Your task to perform on an android device: allow cookies in the chrome app Image 0: 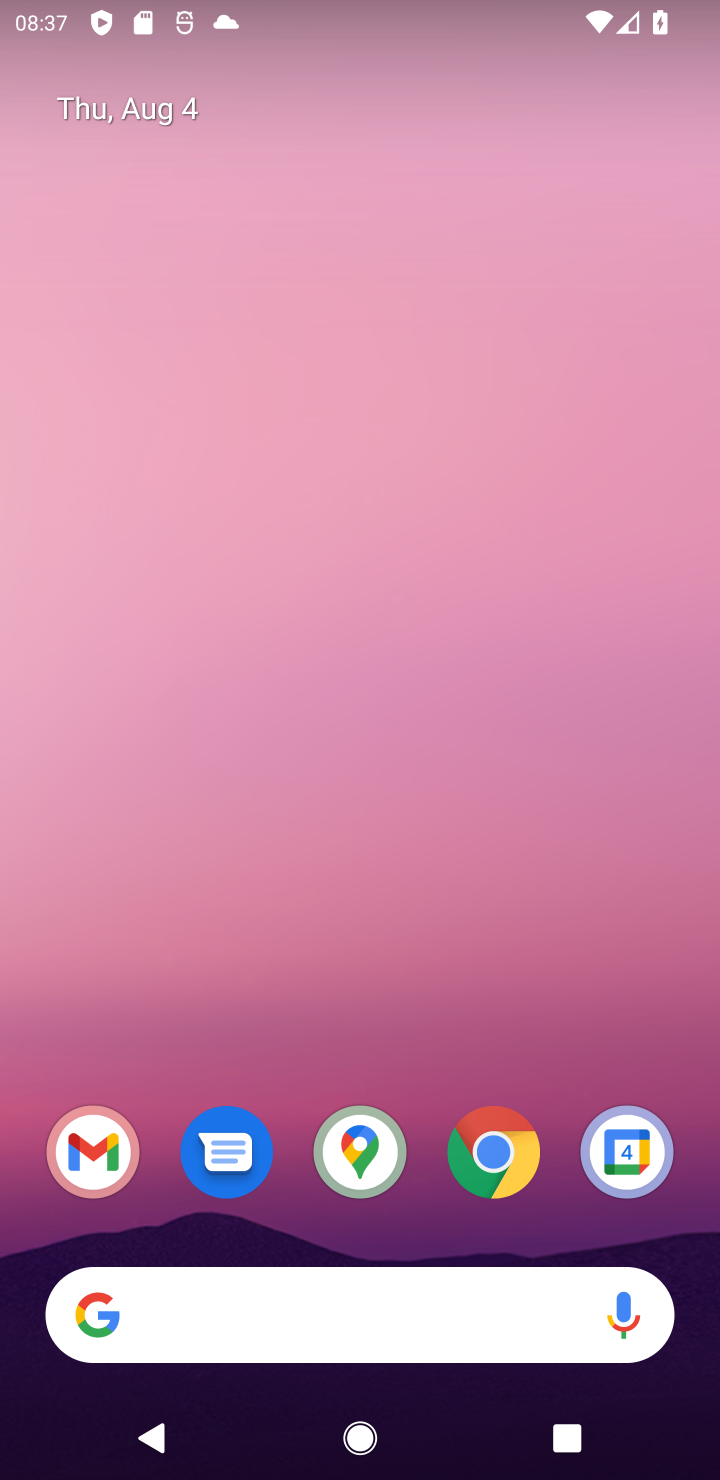
Step 0: click (483, 1160)
Your task to perform on an android device: allow cookies in the chrome app Image 1: 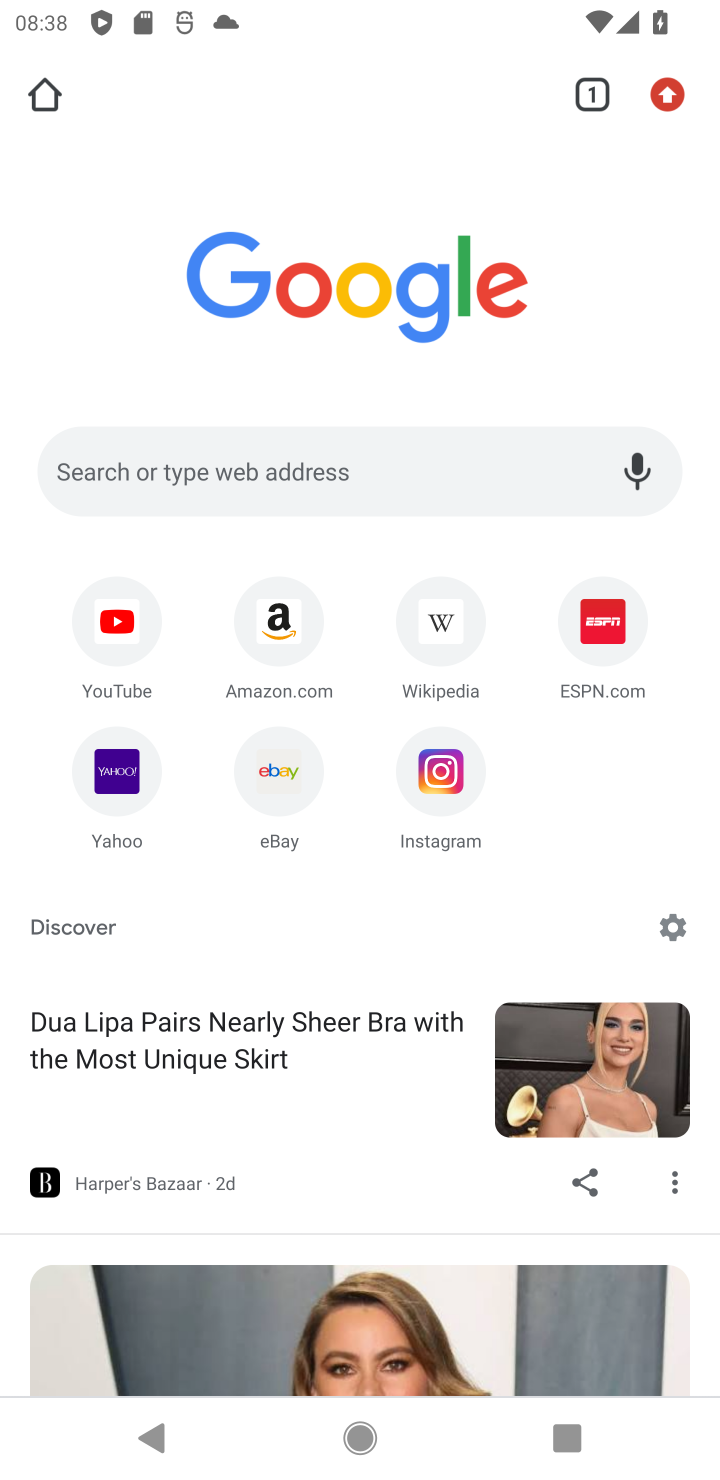
Step 1: task complete